Your task to perform on an android device: turn notification dots on Image 0: 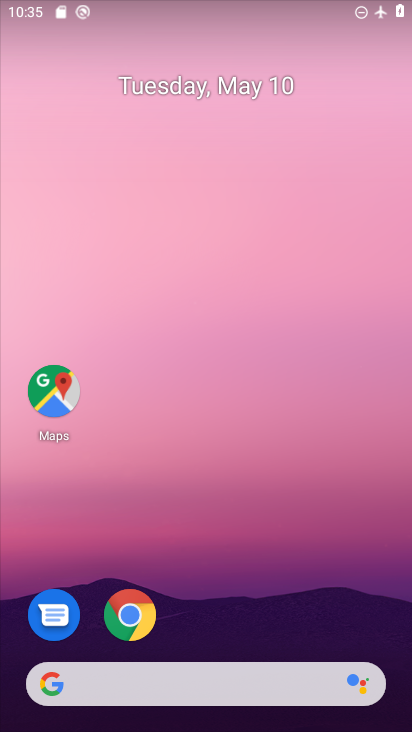
Step 0: drag from (201, 553) to (227, 141)
Your task to perform on an android device: turn notification dots on Image 1: 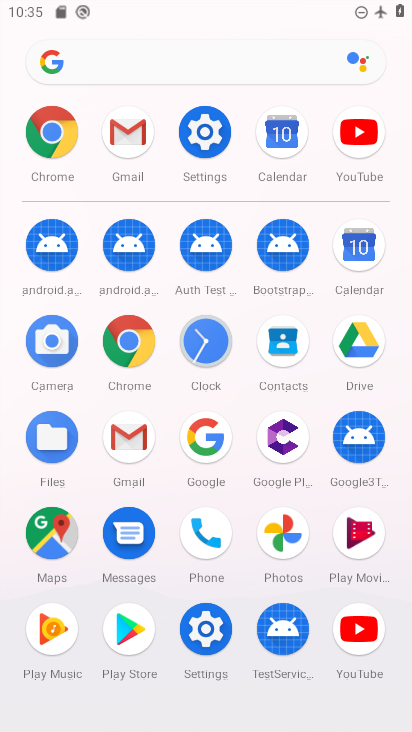
Step 1: click (209, 626)
Your task to perform on an android device: turn notification dots on Image 2: 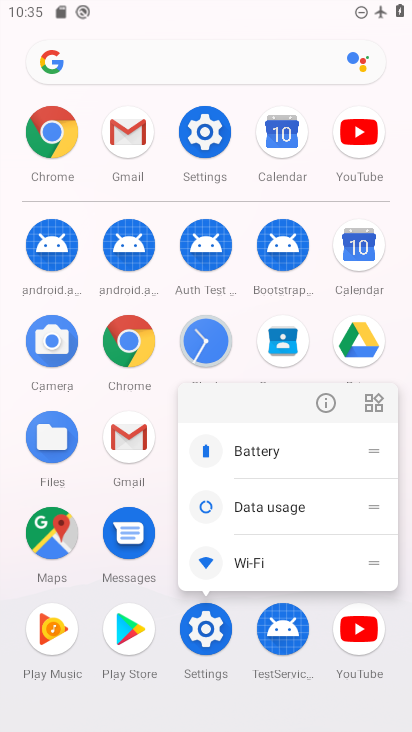
Step 2: click (324, 394)
Your task to perform on an android device: turn notification dots on Image 3: 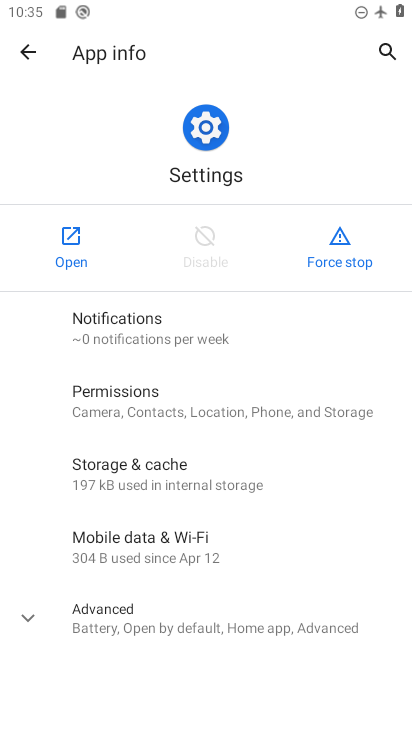
Step 3: click (209, 354)
Your task to perform on an android device: turn notification dots on Image 4: 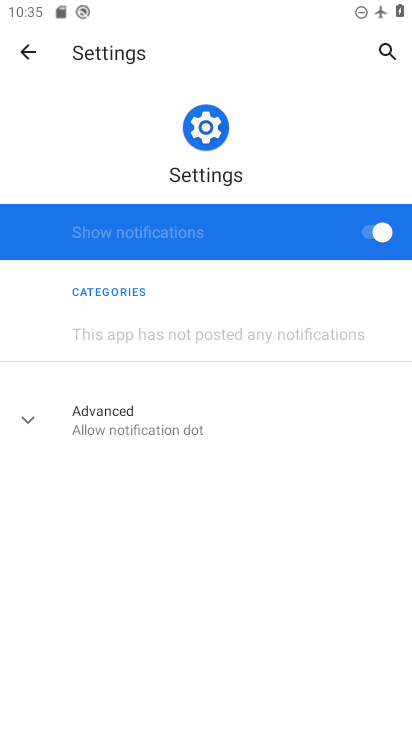
Step 4: drag from (239, 648) to (298, 385)
Your task to perform on an android device: turn notification dots on Image 5: 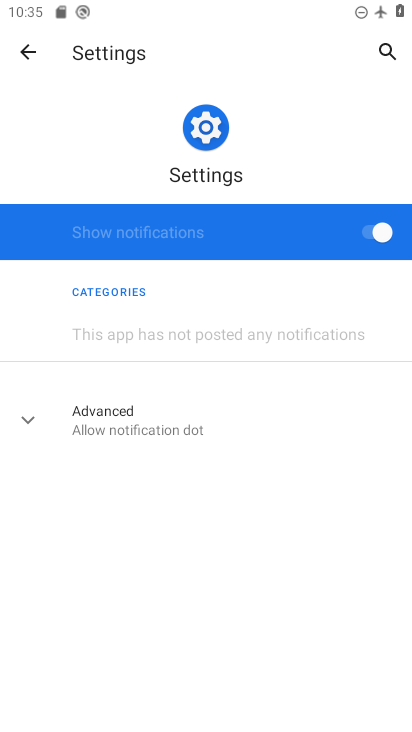
Step 5: click (22, 51)
Your task to perform on an android device: turn notification dots on Image 6: 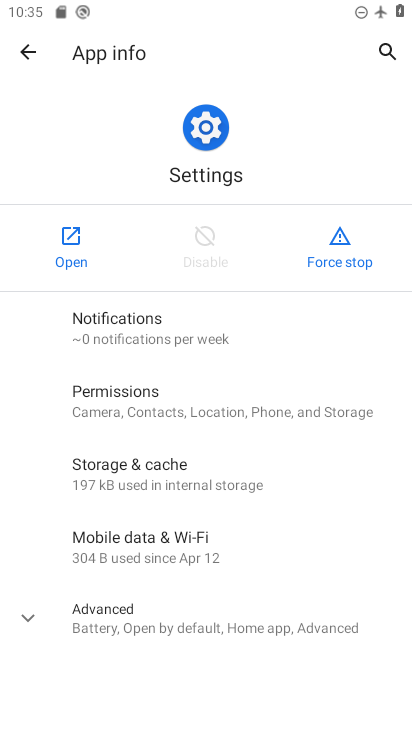
Step 6: click (79, 246)
Your task to perform on an android device: turn notification dots on Image 7: 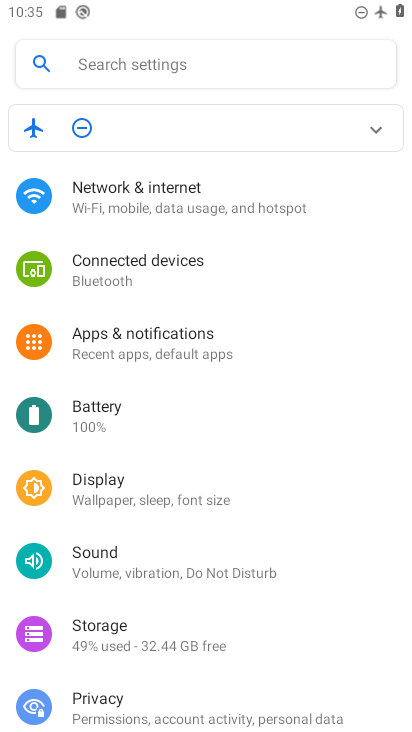
Step 7: click (141, 352)
Your task to perform on an android device: turn notification dots on Image 8: 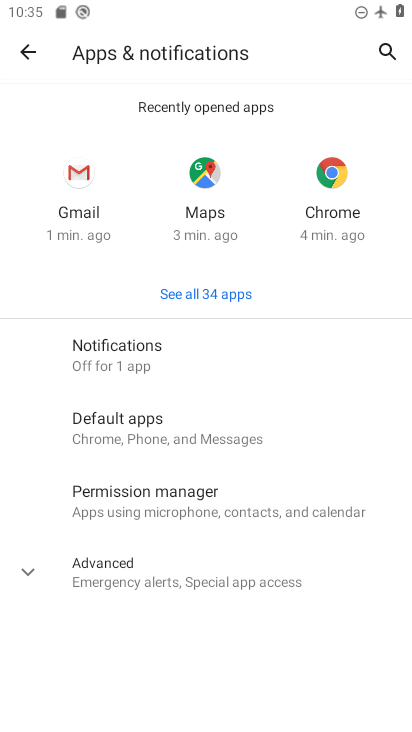
Step 8: click (152, 381)
Your task to perform on an android device: turn notification dots on Image 9: 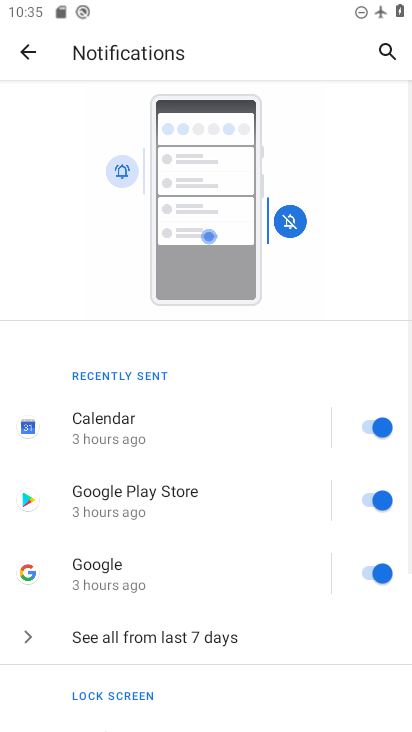
Step 9: drag from (253, 560) to (362, 105)
Your task to perform on an android device: turn notification dots on Image 10: 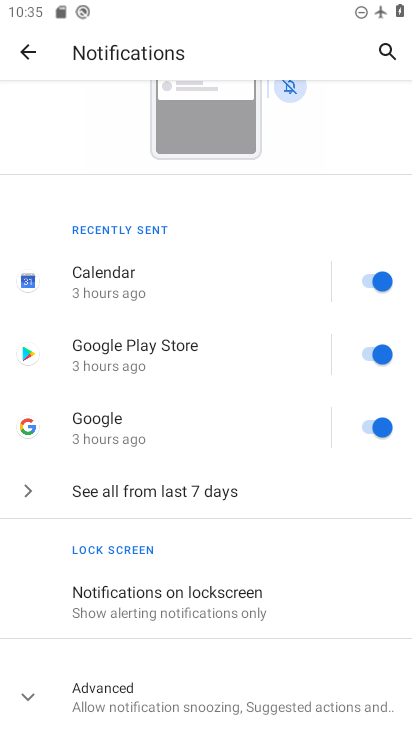
Step 10: click (124, 706)
Your task to perform on an android device: turn notification dots on Image 11: 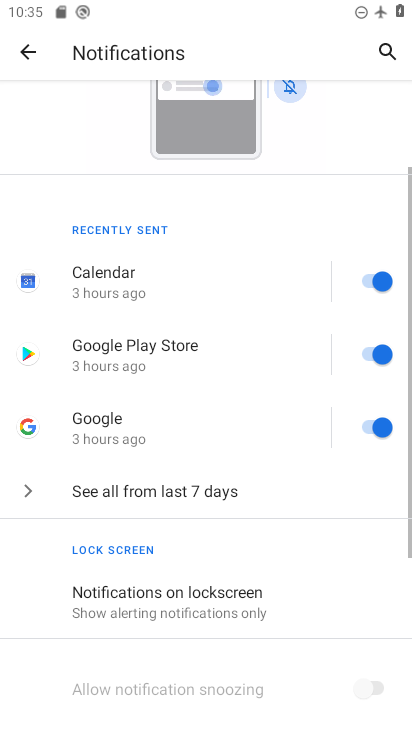
Step 11: drag from (199, 624) to (367, 34)
Your task to perform on an android device: turn notification dots on Image 12: 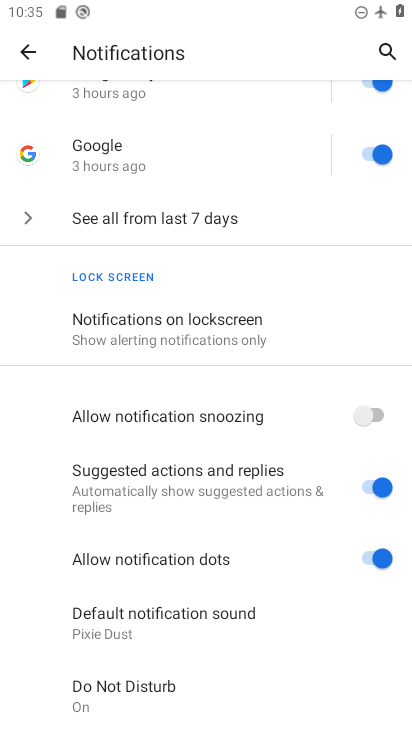
Step 12: drag from (215, 553) to (276, 105)
Your task to perform on an android device: turn notification dots on Image 13: 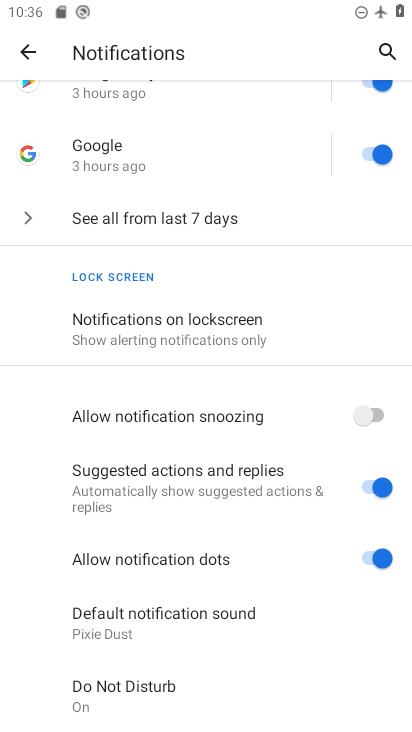
Step 13: click (372, 561)
Your task to perform on an android device: turn notification dots on Image 14: 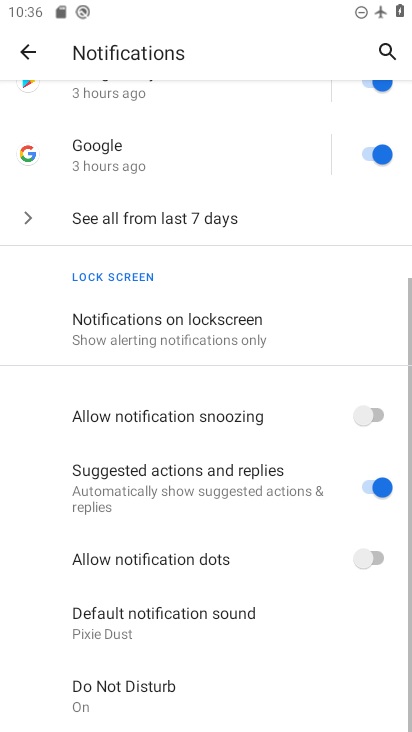
Step 14: task complete